Your task to perform on an android device: Open Google Maps Image 0: 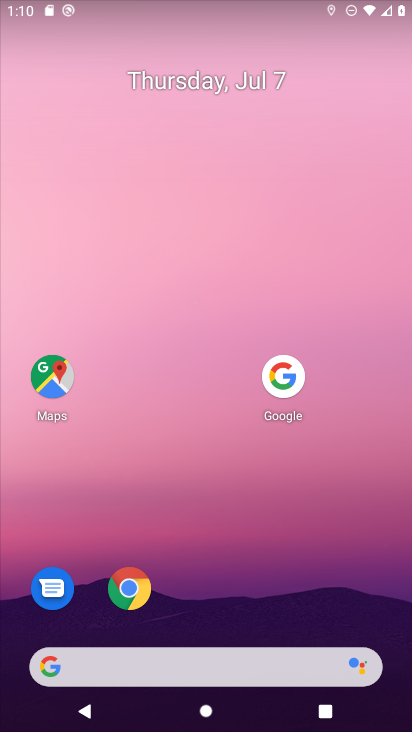
Step 0: click (52, 372)
Your task to perform on an android device: Open Google Maps Image 1: 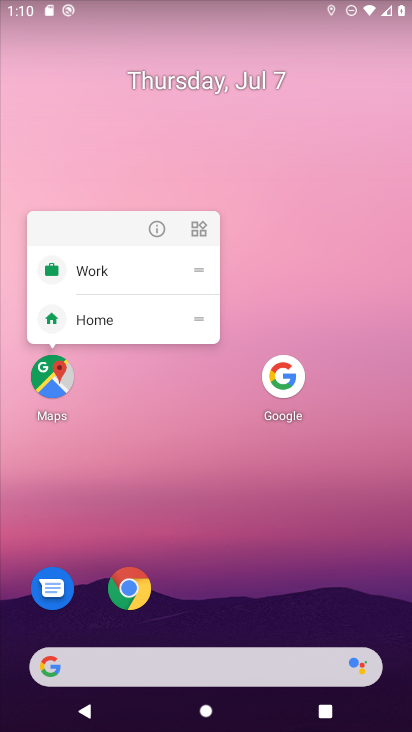
Step 1: click (51, 383)
Your task to perform on an android device: Open Google Maps Image 2: 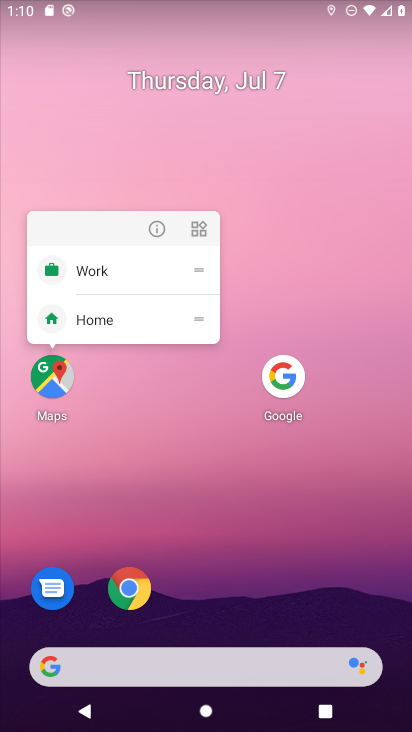
Step 2: click (54, 377)
Your task to perform on an android device: Open Google Maps Image 3: 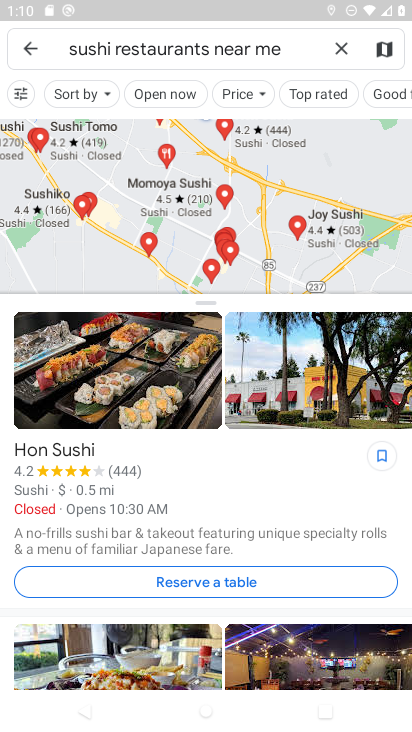
Step 3: task complete